Your task to perform on an android device: open device folders in google photos Image 0: 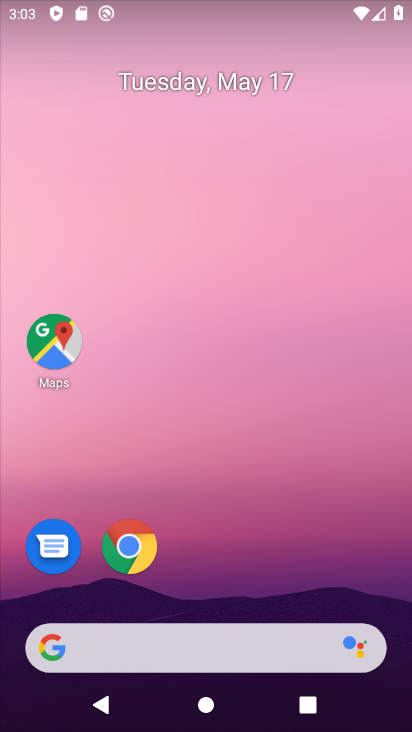
Step 0: press back button
Your task to perform on an android device: open device folders in google photos Image 1: 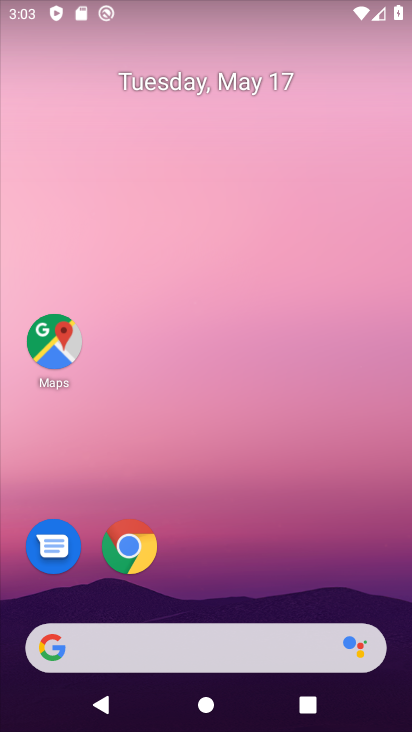
Step 1: drag from (227, 573) to (225, 19)
Your task to perform on an android device: open device folders in google photos Image 2: 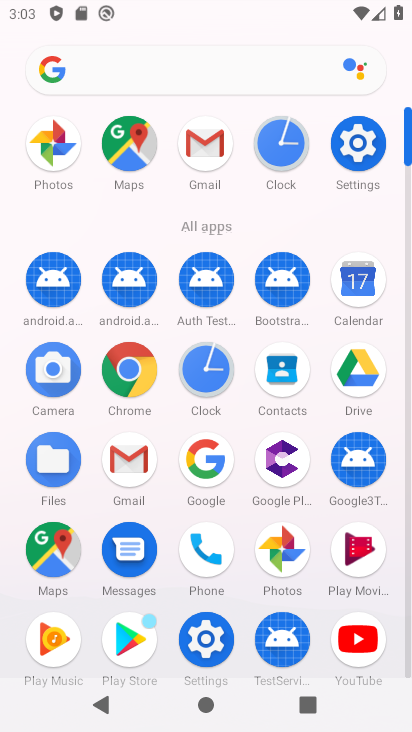
Step 2: click (281, 549)
Your task to perform on an android device: open device folders in google photos Image 3: 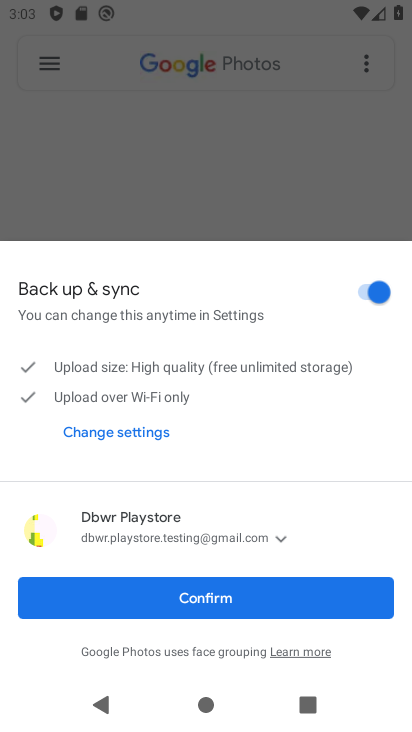
Step 3: click (196, 596)
Your task to perform on an android device: open device folders in google photos Image 4: 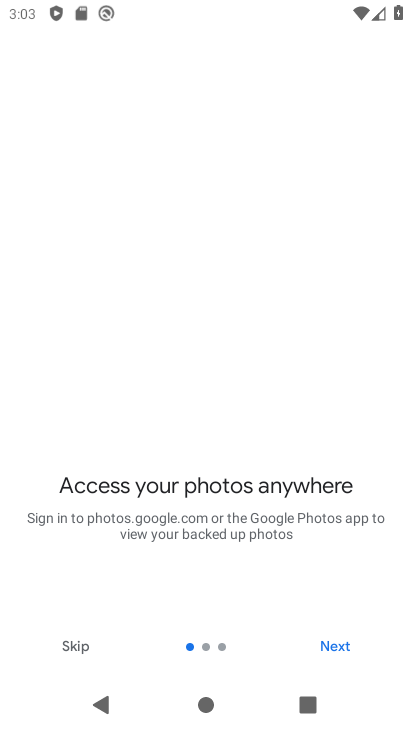
Step 4: click (317, 646)
Your task to perform on an android device: open device folders in google photos Image 5: 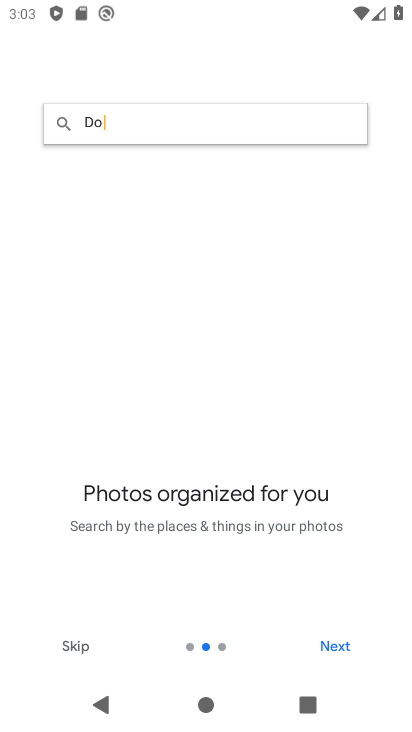
Step 5: click (317, 646)
Your task to perform on an android device: open device folders in google photos Image 6: 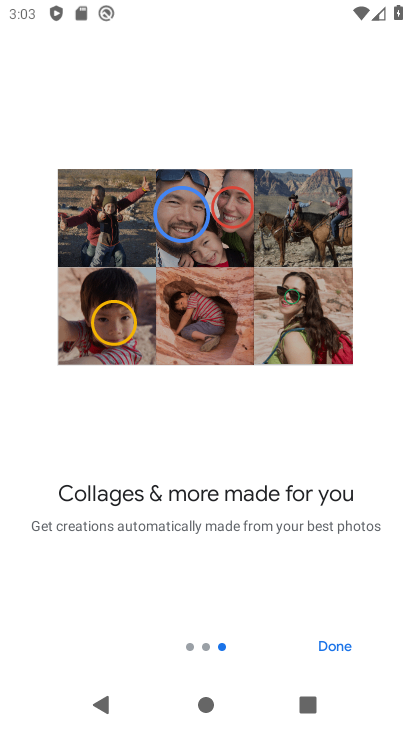
Step 6: click (317, 646)
Your task to perform on an android device: open device folders in google photos Image 7: 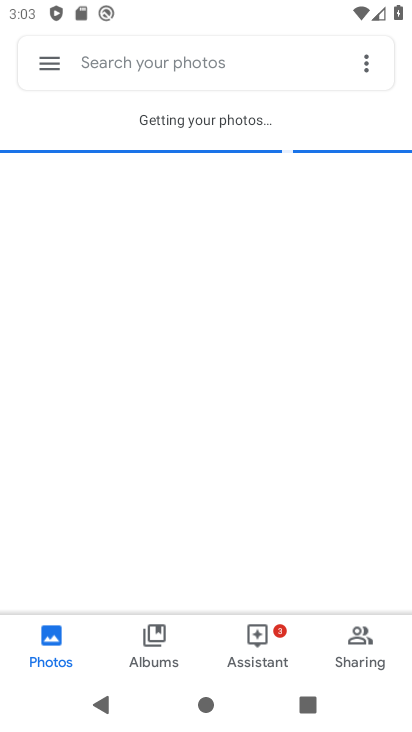
Step 7: click (46, 62)
Your task to perform on an android device: open device folders in google photos Image 8: 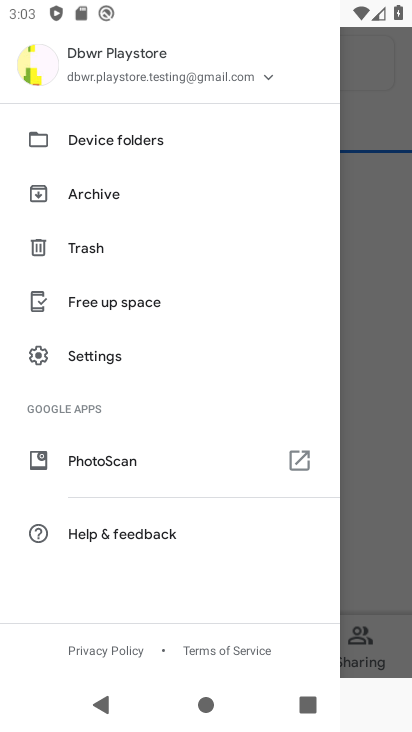
Step 8: click (105, 139)
Your task to perform on an android device: open device folders in google photos Image 9: 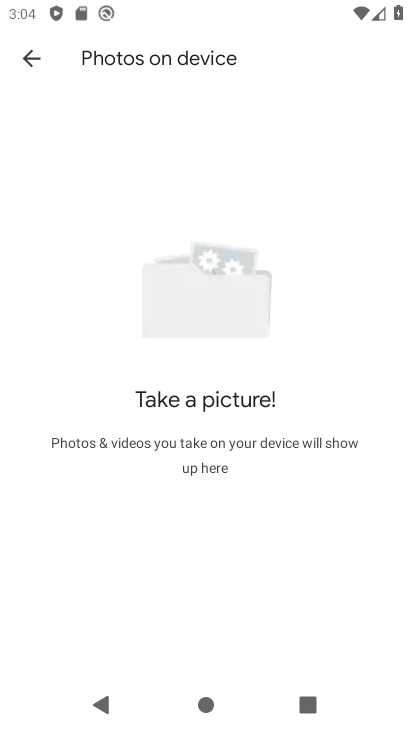
Step 9: task complete